Your task to perform on an android device: change timer sound Image 0: 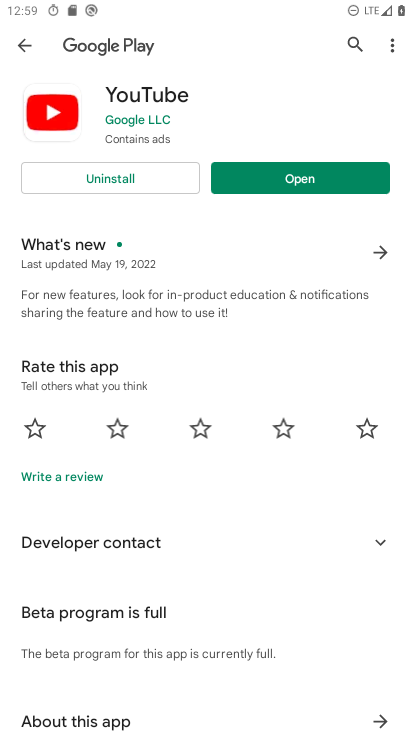
Step 0: press home button
Your task to perform on an android device: change timer sound Image 1: 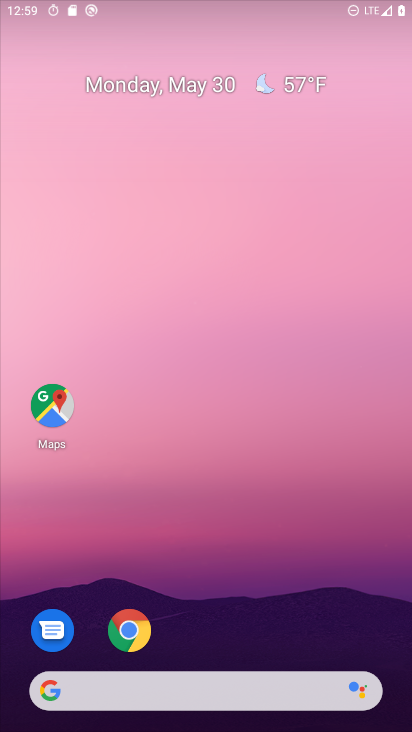
Step 1: drag from (224, 542) to (150, 72)
Your task to perform on an android device: change timer sound Image 2: 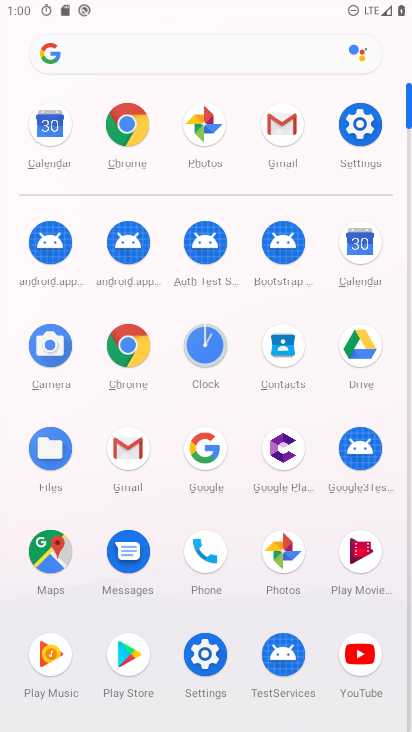
Step 2: click (201, 344)
Your task to perform on an android device: change timer sound Image 3: 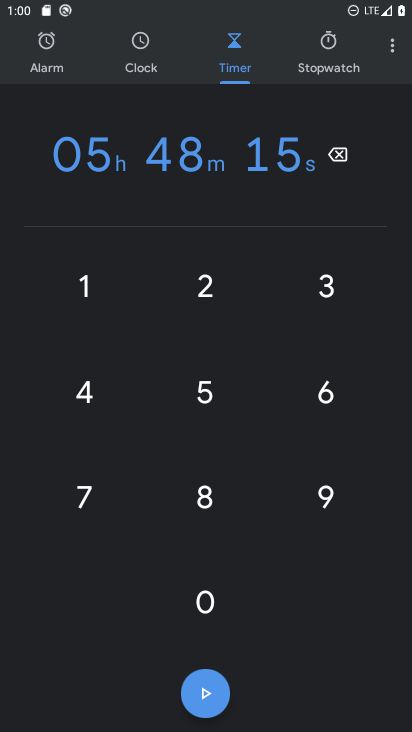
Step 3: click (240, 43)
Your task to perform on an android device: change timer sound Image 4: 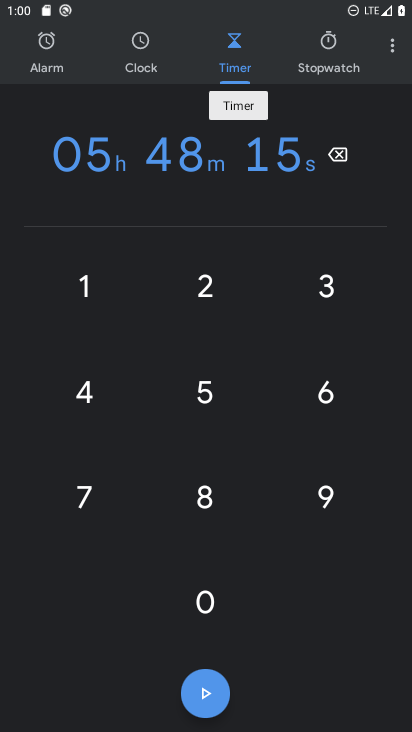
Step 4: click (193, 418)
Your task to perform on an android device: change timer sound Image 5: 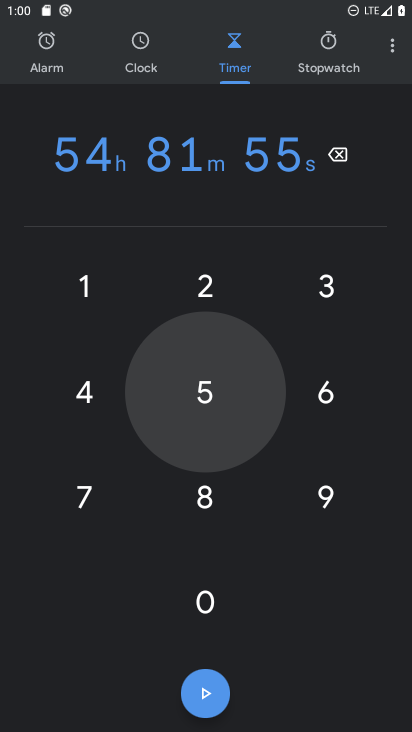
Step 5: click (85, 405)
Your task to perform on an android device: change timer sound Image 6: 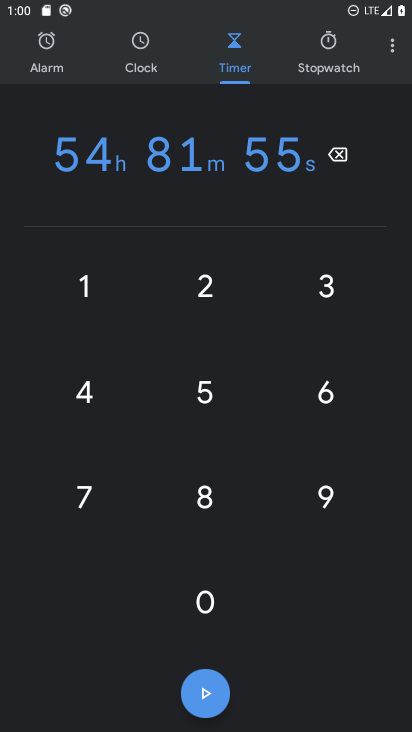
Step 6: task complete